Your task to perform on an android device: change your default location settings in chrome Image 0: 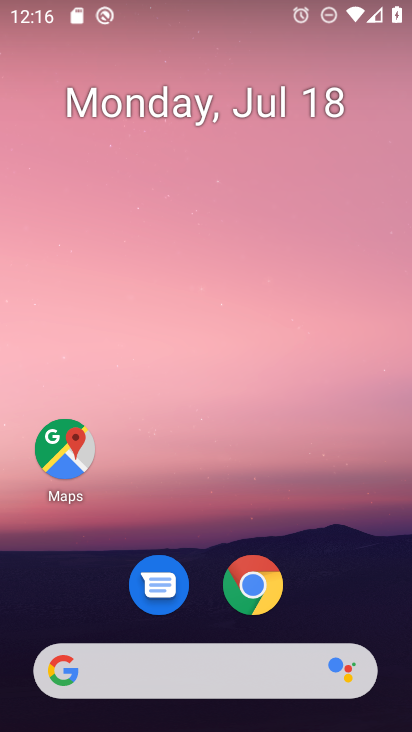
Step 0: click (262, 576)
Your task to perform on an android device: change your default location settings in chrome Image 1: 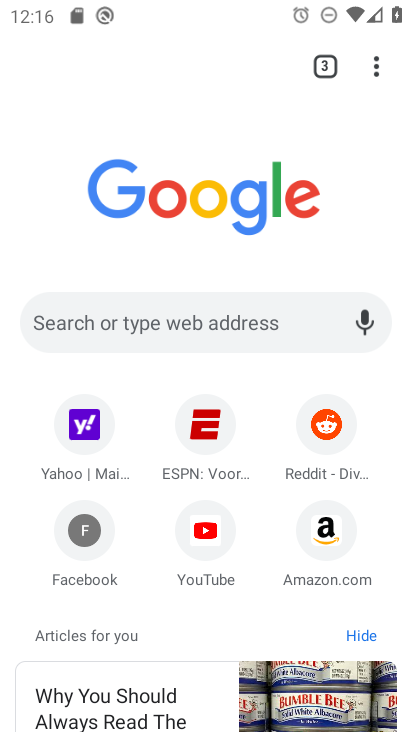
Step 1: click (377, 67)
Your task to perform on an android device: change your default location settings in chrome Image 2: 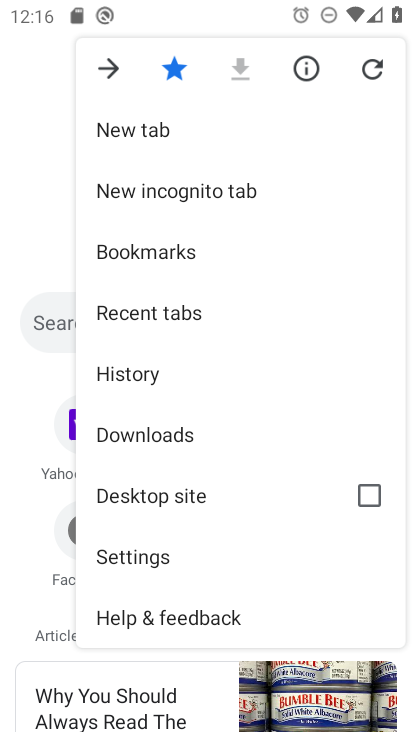
Step 2: click (162, 551)
Your task to perform on an android device: change your default location settings in chrome Image 3: 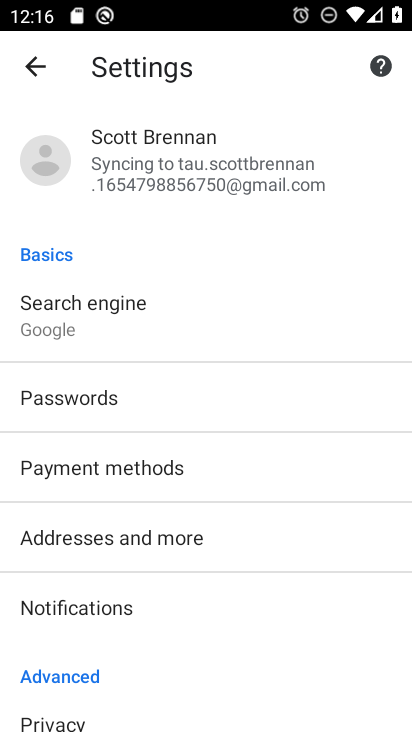
Step 3: drag from (257, 555) to (237, 236)
Your task to perform on an android device: change your default location settings in chrome Image 4: 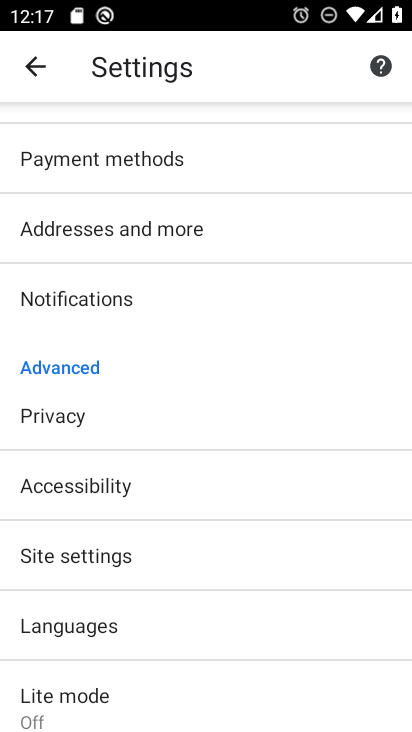
Step 4: click (116, 543)
Your task to perform on an android device: change your default location settings in chrome Image 5: 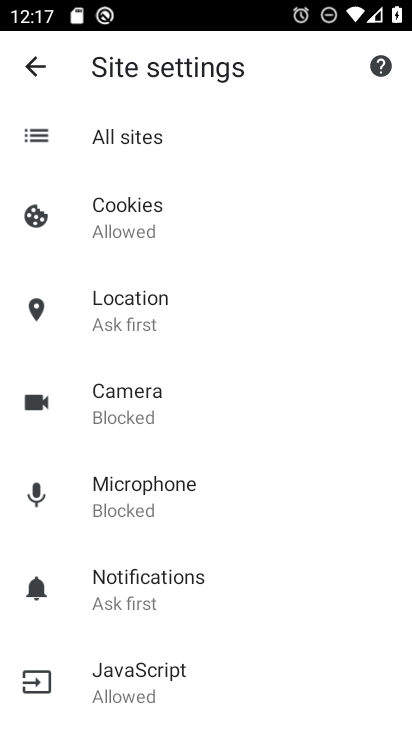
Step 5: click (156, 294)
Your task to perform on an android device: change your default location settings in chrome Image 6: 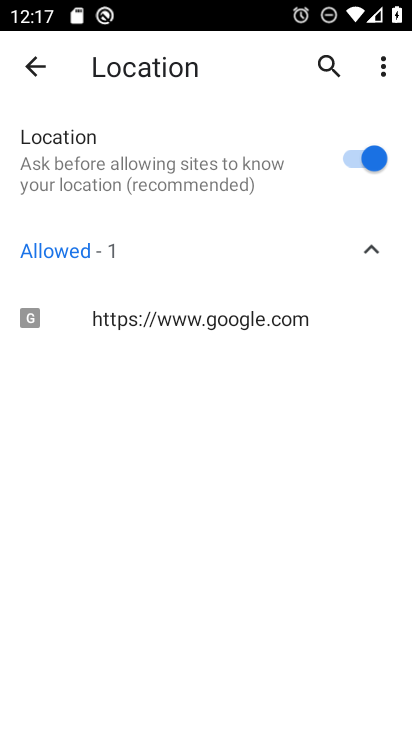
Step 6: click (353, 156)
Your task to perform on an android device: change your default location settings in chrome Image 7: 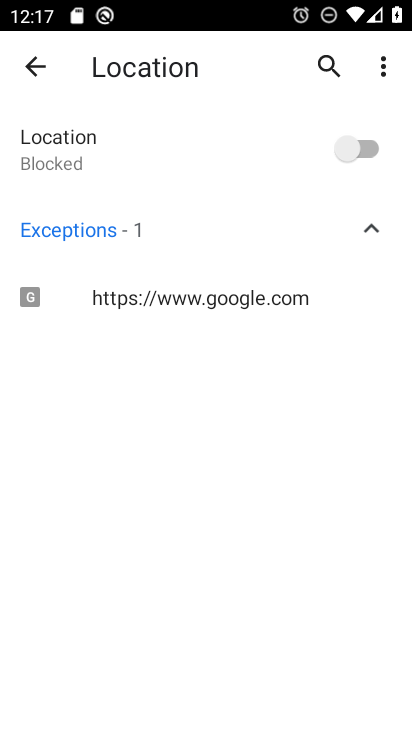
Step 7: task complete